Your task to perform on an android device: toggle data saver in the chrome app Image 0: 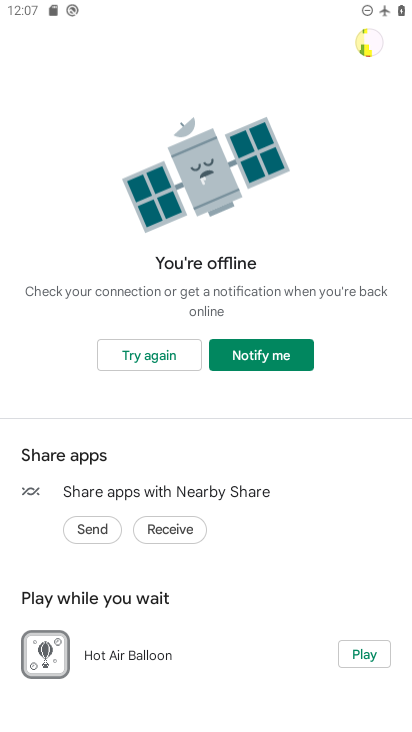
Step 0: press home button
Your task to perform on an android device: toggle data saver in the chrome app Image 1: 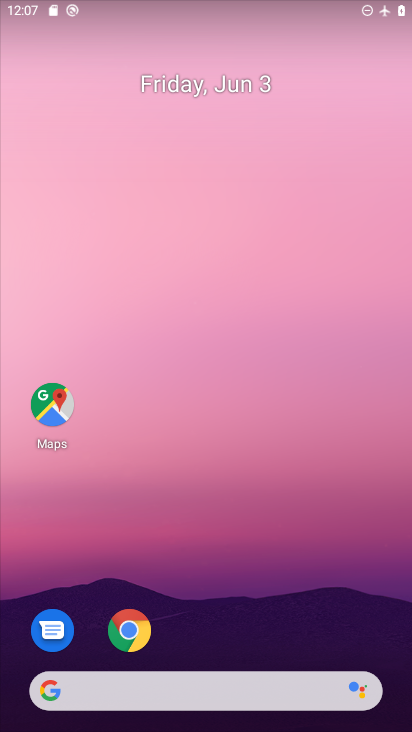
Step 1: drag from (242, 619) to (188, 275)
Your task to perform on an android device: toggle data saver in the chrome app Image 2: 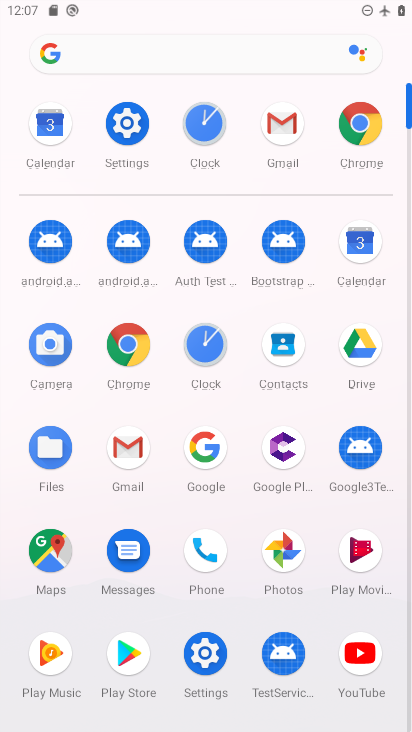
Step 2: click (364, 127)
Your task to perform on an android device: toggle data saver in the chrome app Image 3: 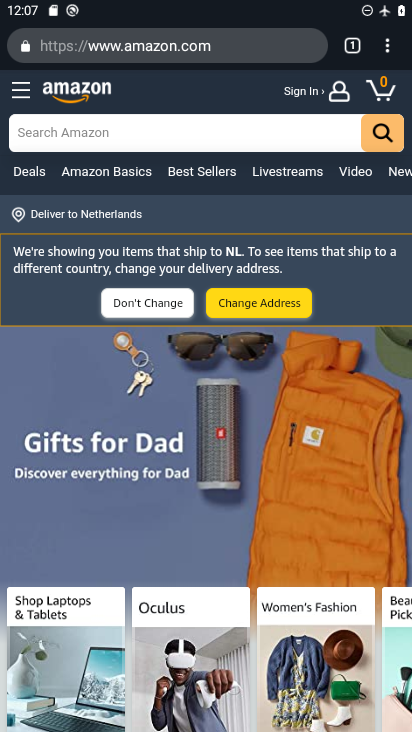
Step 3: click (394, 56)
Your task to perform on an android device: toggle data saver in the chrome app Image 4: 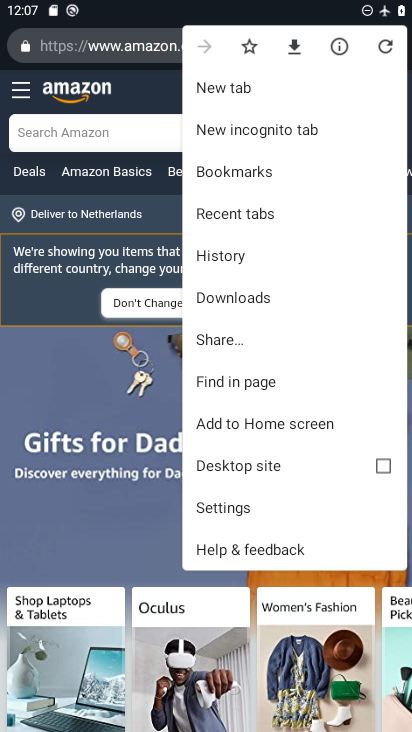
Step 4: click (241, 507)
Your task to perform on an android device: toggle data saver in the chrome app Image 5: 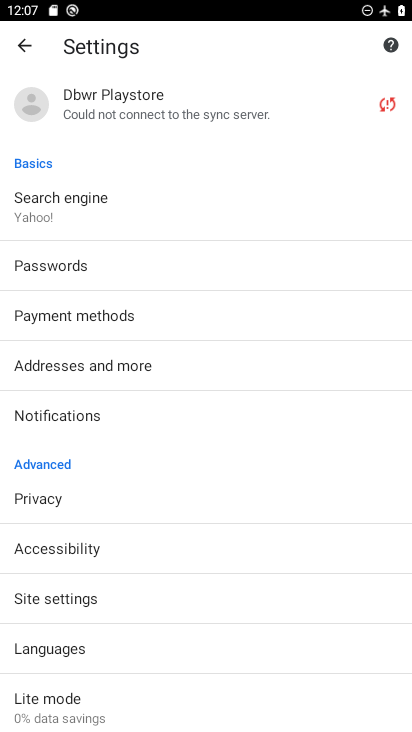
Step 5: click (186, 701)
Your task to perform on an android device: toggle data saver in the chrome app Image 6: 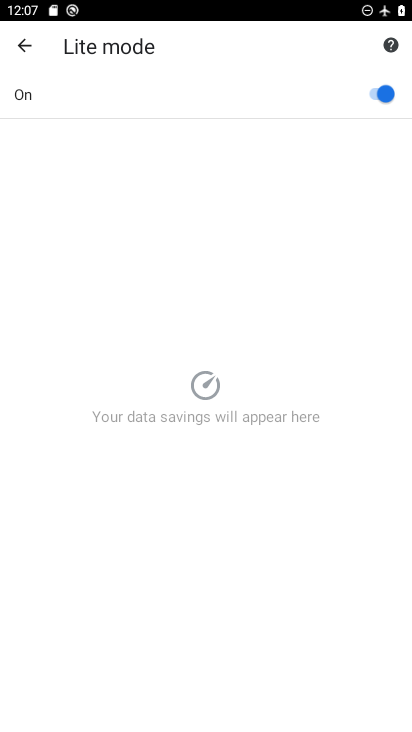
Step 6: click (376, 104)
Your task to perform on an android device: toggle data saver in the chrome app Image 7: 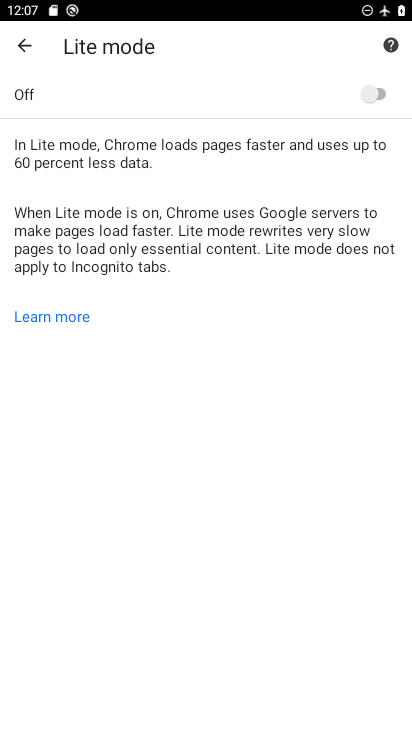
Step 7: task complete